Your task to perform on an android device: check data usage Image 0: 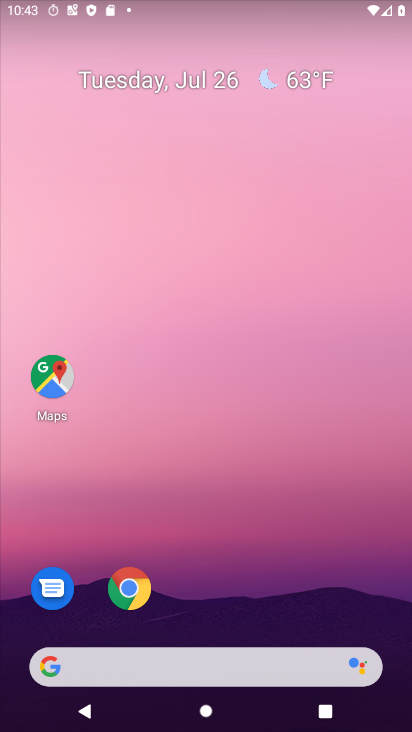
Step 0: drag from (242, 7) to (130, 543)
Your task to perform on an android device: check data usage Image 1: 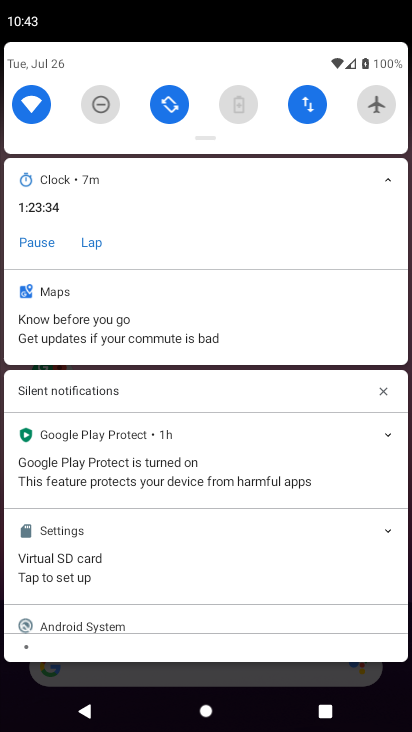
Step 1: click (308, 104)
Your task to perform on an android device: check data usage Image 2: 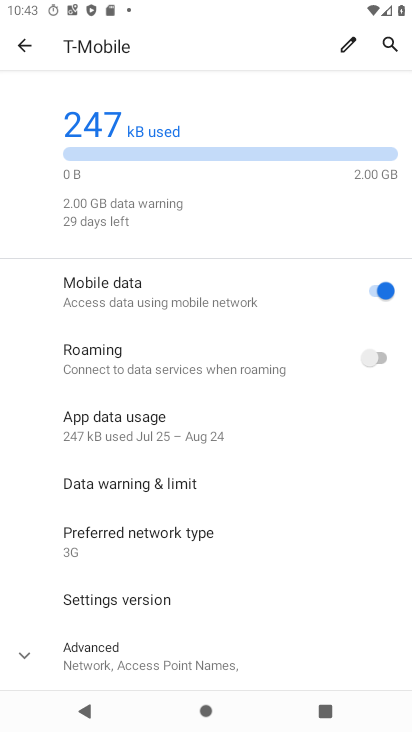
Step 2: task complete